Your task to perform on an android device: turn on location history Image 0: 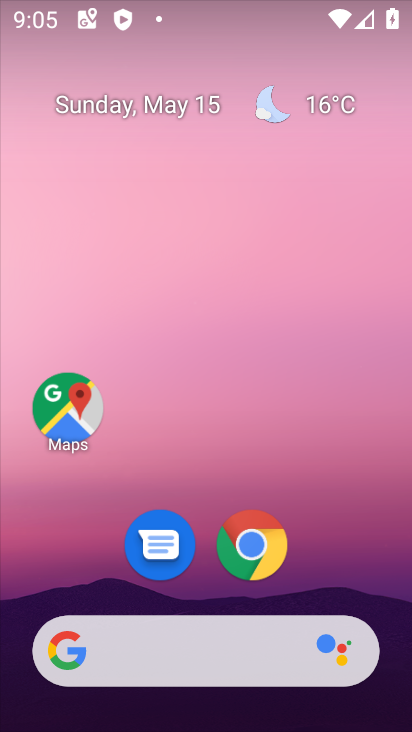
Step 0: drag from (341, 563) to (250, 141)
Your task to perform on an android device: turn on location history Image 1: 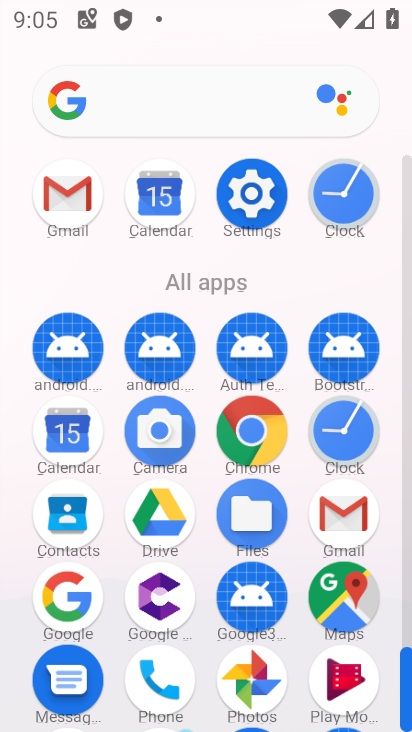
Step 1: click (249, 193)
Your task to perform on an android device: turn on location history Image 2: 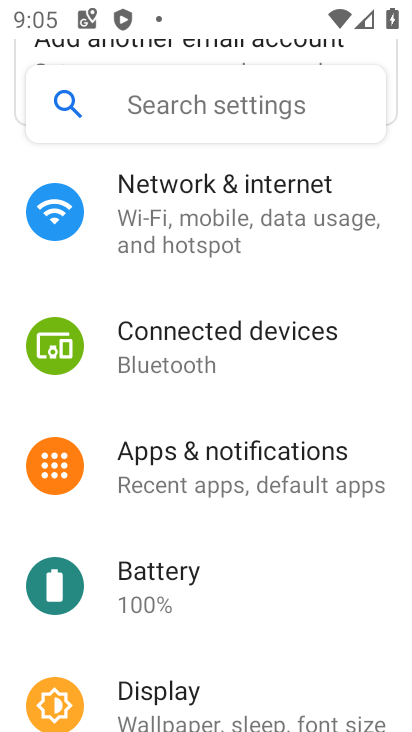
Step 2: drag from (200, 529) to (222, 416)
Your task to perform on an android device: turn on location history Image 3: 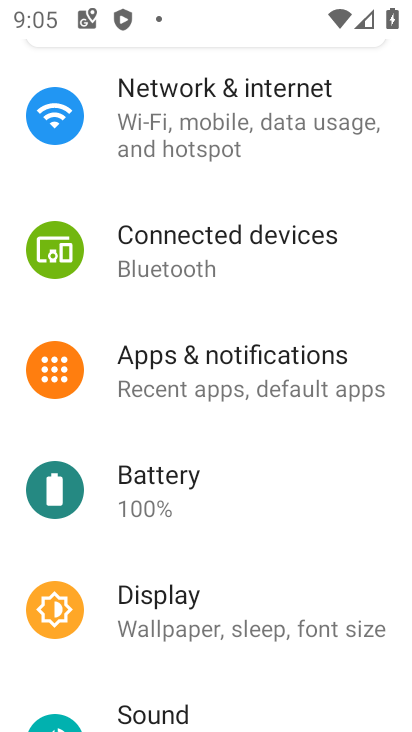
Step 3: drag from (209, 500) to (232, 399)
Your task to perform on an android device: turn on location history Image 4: 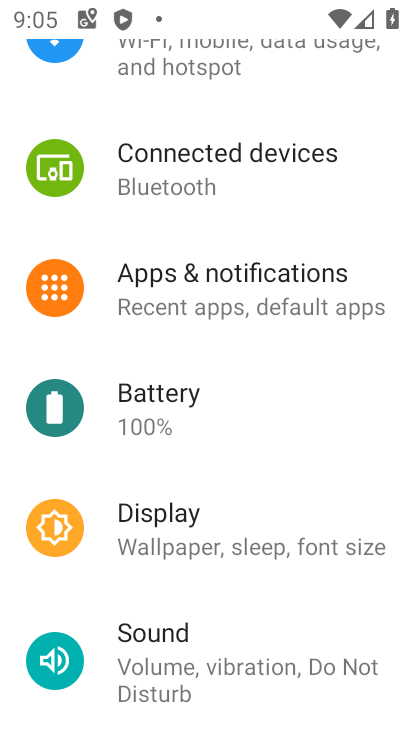
Step 4: drag from (178, 480) to (209, 400)
Your task to perform on an android device: turn on location history Image 5: 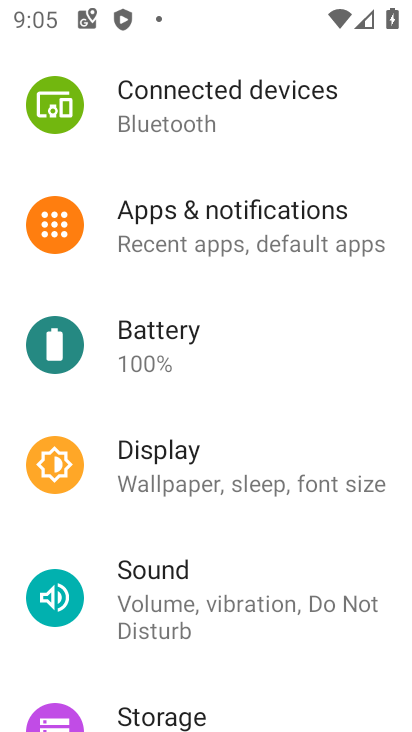
Step 5: drag from (164, 414) to (244, 307)
Your task to perform on an android device: turn on location history Image 6: 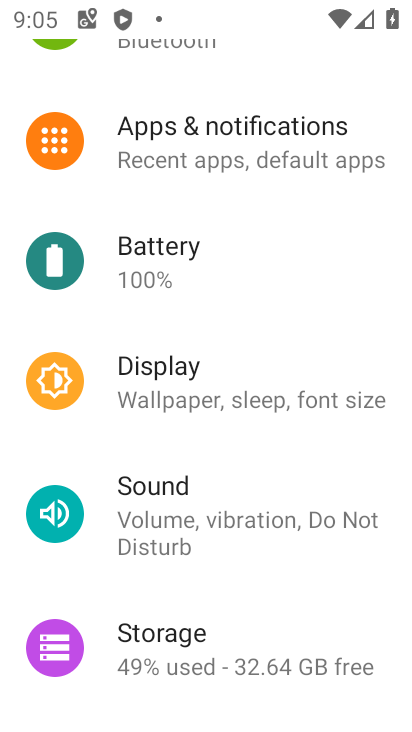
Step 6: drag from (149, 578) to (192, 465)
Your task to perform on an android device: turn on location history Image 7: 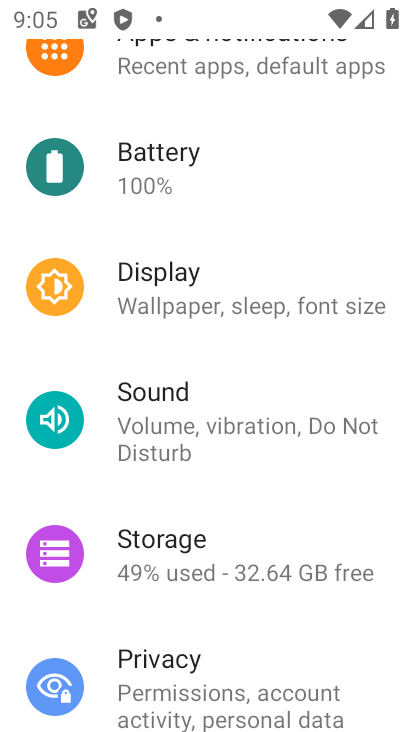
Step 7: drag from (156, 499) to (225, 393)
Your task to perform on an android device: turn on location history Image 8: 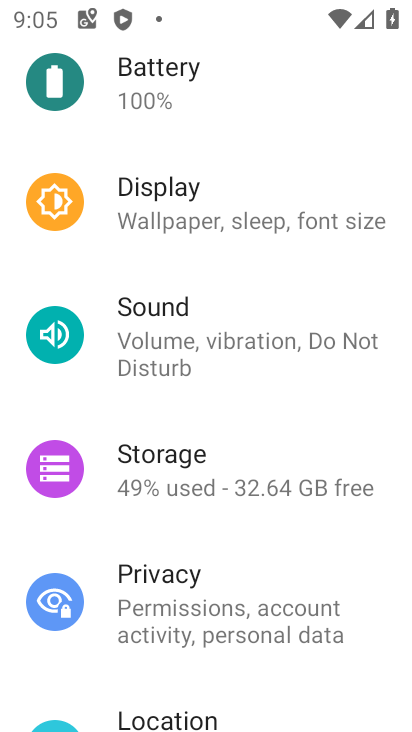
Step 8: drag from (150, 418) to (228, 319)
Your task to perform on an android device: turn on location history Image 9: 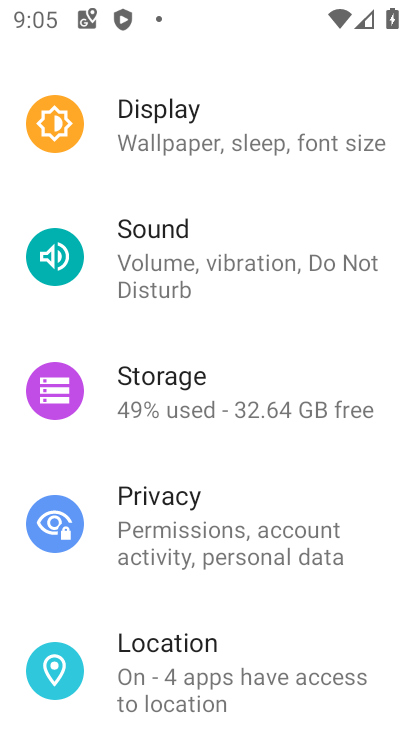
Step 9: drag from (143, 461) to (182, 365)
Your task to perform on an android device: turn on location history Image 10: 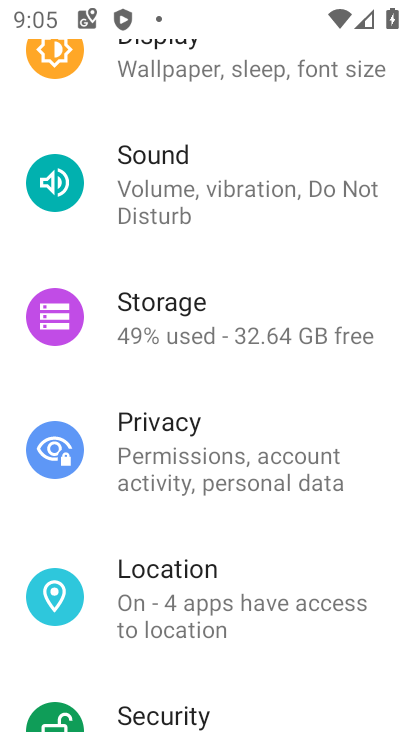
Step 10: click (161, 577)
Your task to perform on an android device: turn on location history Image 11: 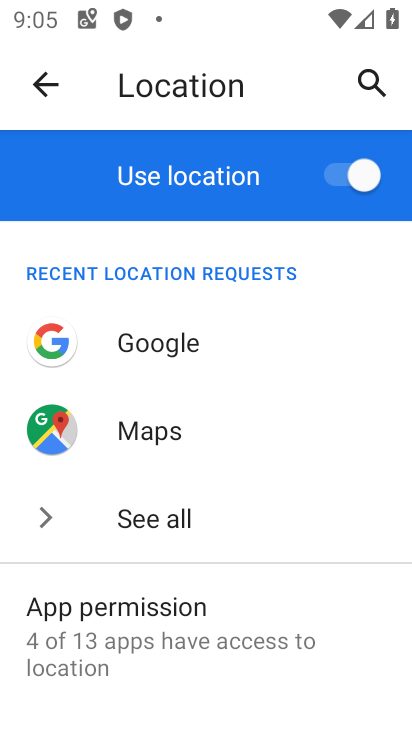
Step 11: drag from (191, 670) to (253, 538)
Your task to perform on an android device: turn on location history Image 12: 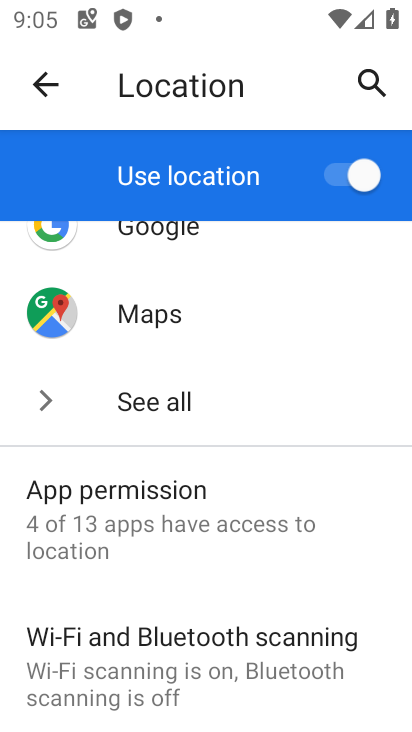
Step 12: drag from (182, 575) to (253, 464)
Your task to perform on an android device: turn on location history Image 13: 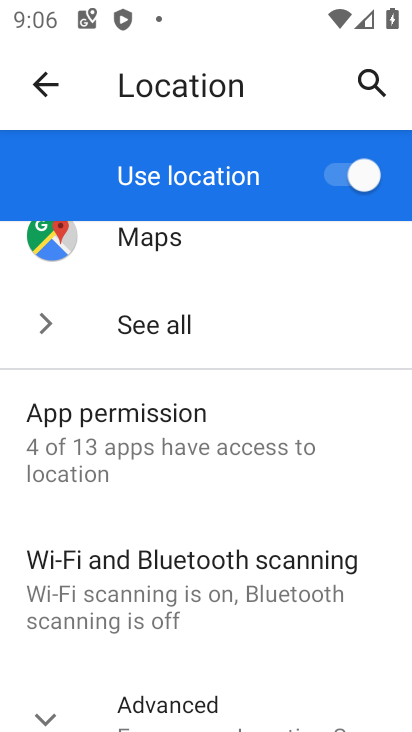
Step 13: drag from (217, 642) to (244, 498)
Your task to perform on an android device: turn on location history Image 14: 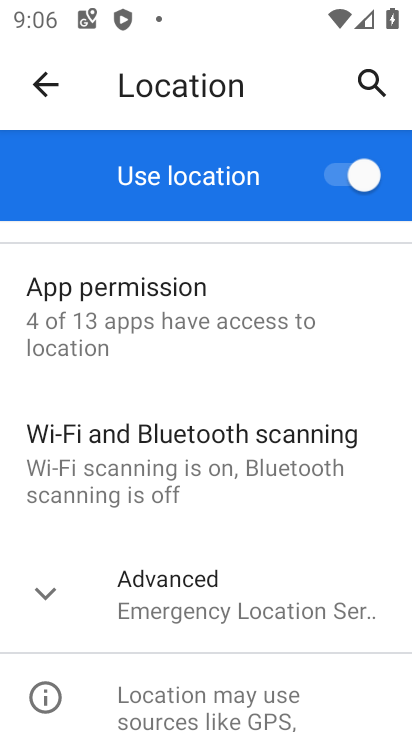
Step 14: drag from (205, 543) to (283, 425)
Your task to perform on an android device: turn on location history Image 15: 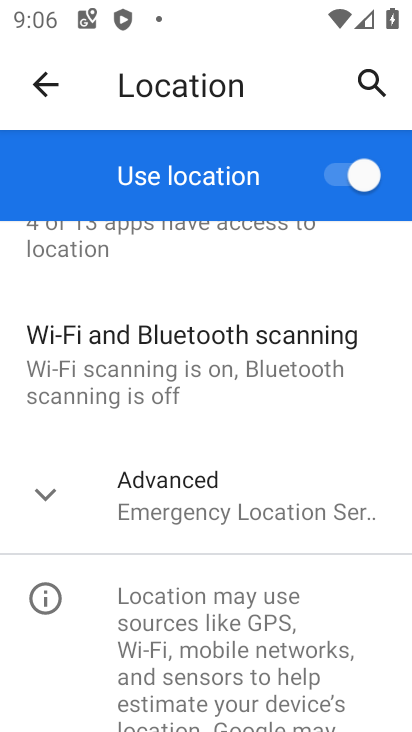
Step 15: click (233, 503)
Your task to perform on an android device: turn on location history Image 16: 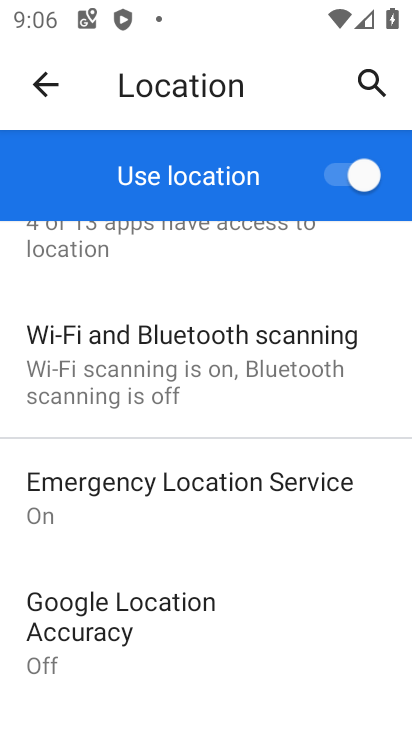
Step 16: drag from (205, 634) to (295, 417)
Your task to perform on an android device: turn on location history Image 17: 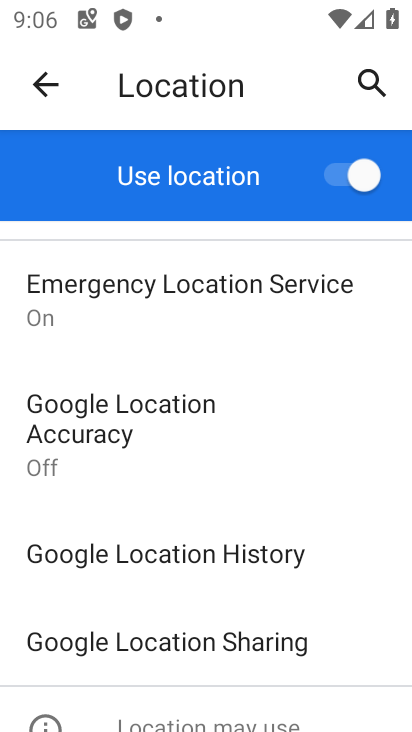
Step 17: click (218, 556)
Your task to perform on an android device: turn on location history Image 18: 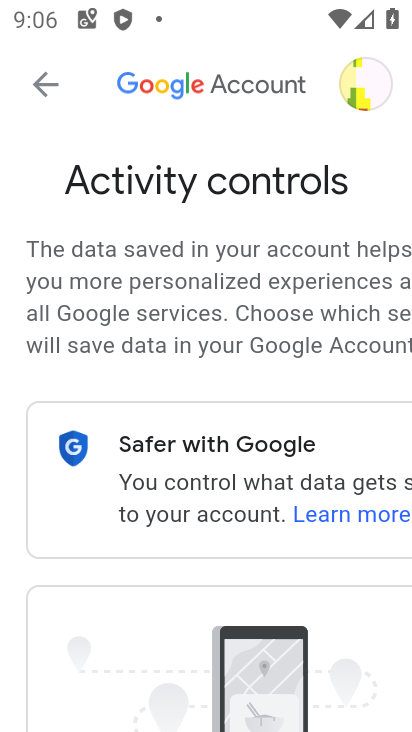
Step 18: drag from (167, 638) to (218, 404)
Your task to perform on an android device: turn on location history Image 19: 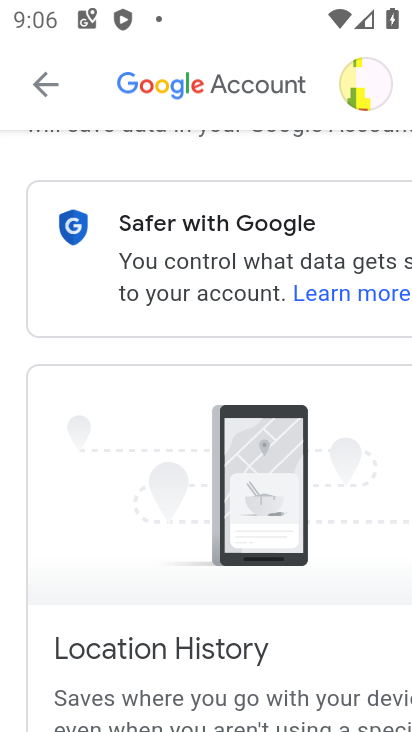
Step 19: drag from (151, 604) to (224, 325)
Your task to perform on an android device: turn on location history Image 20: 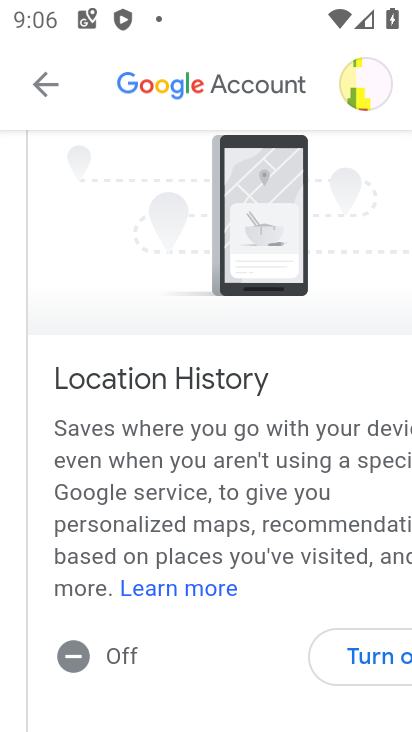
Step 20: click (377, 656)
Your task to perform on an android device: turn on location history Image 21: 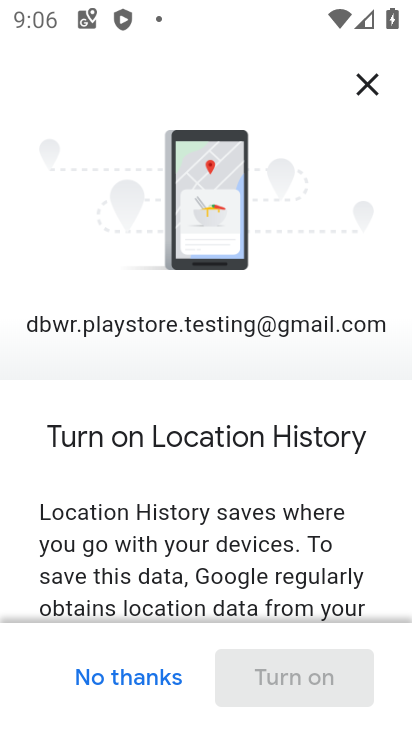
Step 21: drag from (273, 572) to (332, 353)
Your task to perform on an android device: turn on location history Image 22: 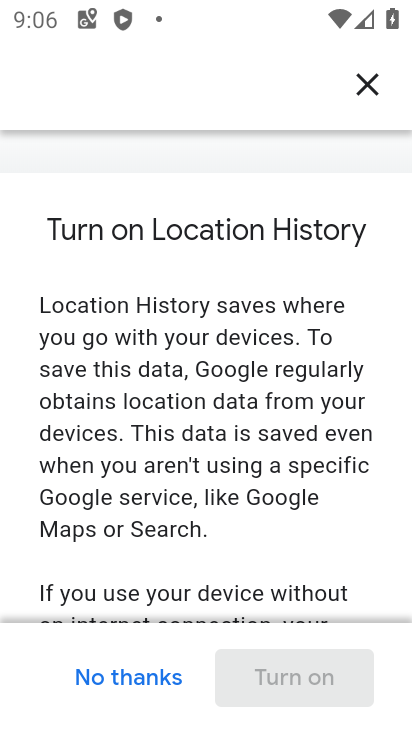
Step 22: drag from (286, 563) to (357, 355)
Your task to perform on an android device: turn on location history Image 23: 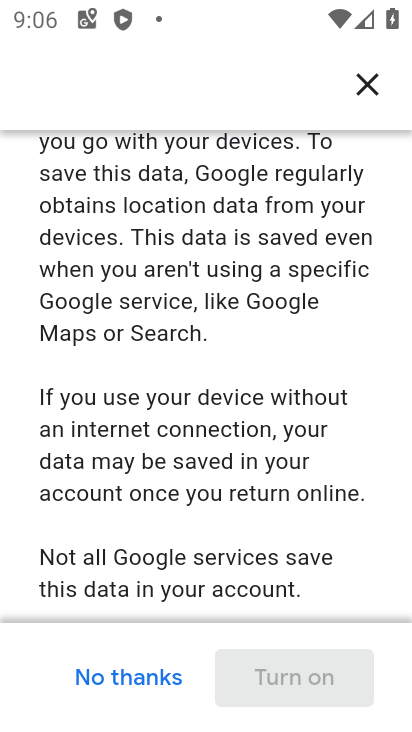
Step 23: drag from (262, 545) to (253, 338)
Your task to perform on an android device: turn on location history Image 24: 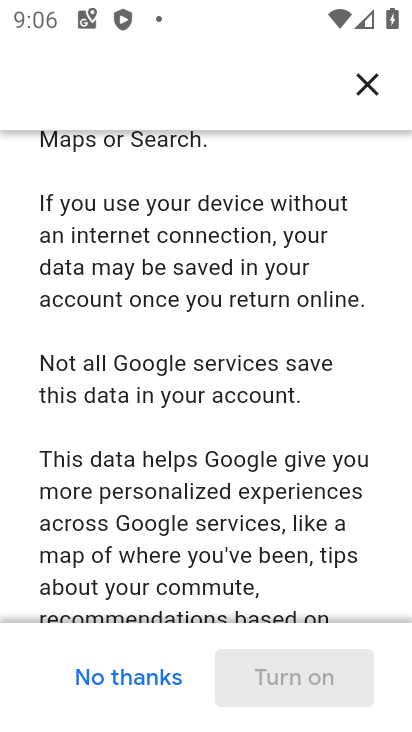
Step 24: drag from (207, 531) to (269, 399)
Your task to perform on an android device: turn on location history Image 25: 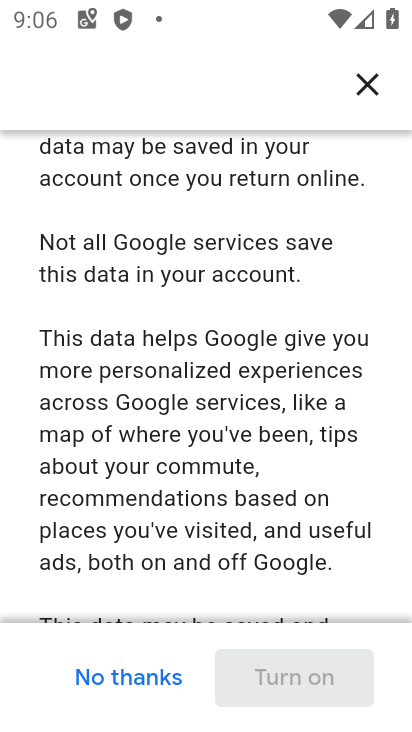
Step 25: drag from (213, 545) to (248, 425)
Your task to perform on an android device: turn on location history Image 26: 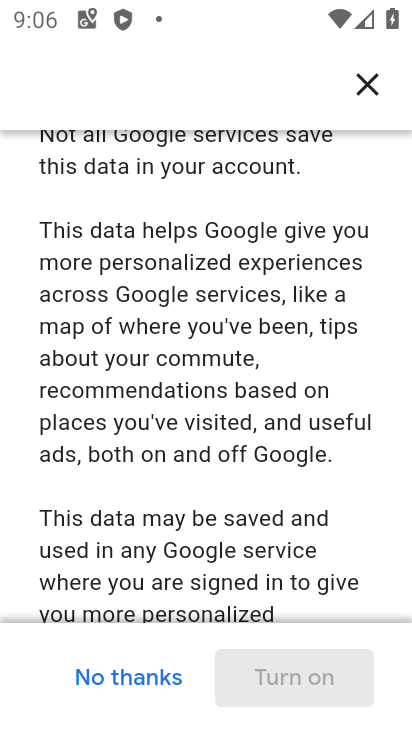
Step 26: drag from (223, 586) to (267, 430)
Your task to perform on an android device: turn on location history Image 27: 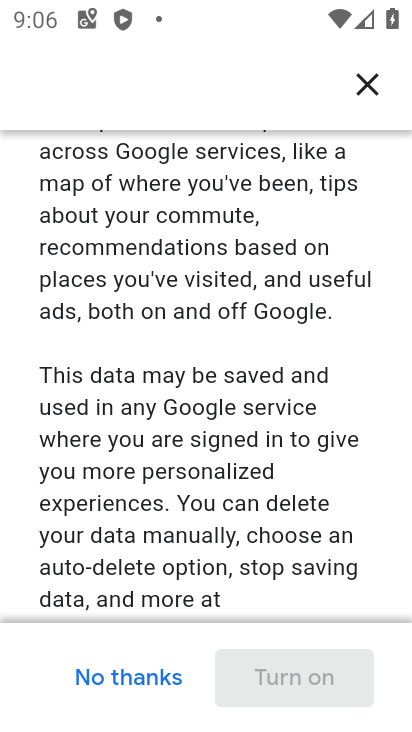
Step 27: drag from (236, 590) to (305, 458)
Your task to perform on an android device: turn on location history Image 28: 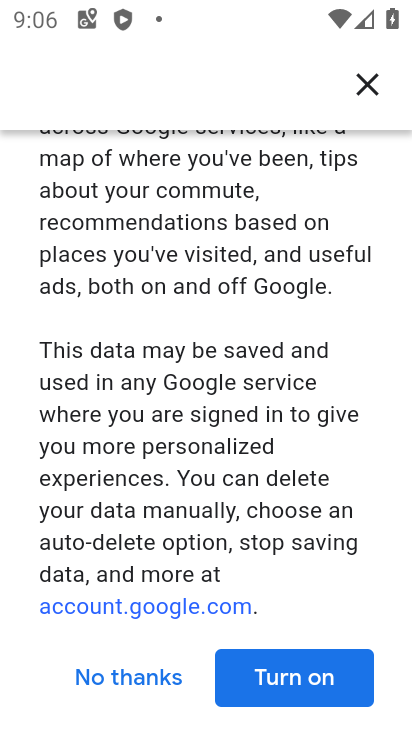
Step 28: click (277, 679)
Your task to perform on an android device: turn on location history Image 29: 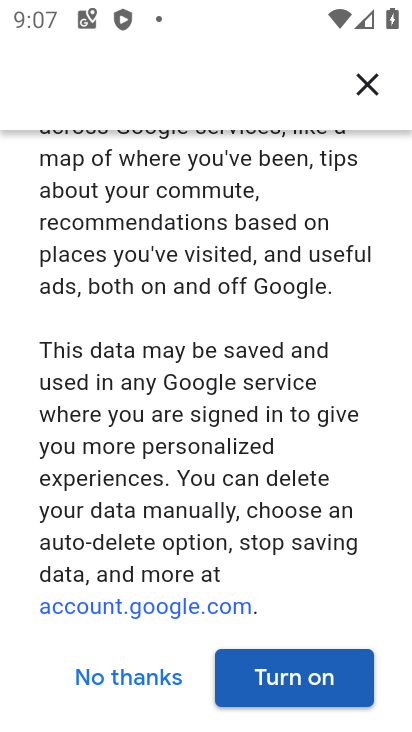
Step 29: click (277, 679)
Your task to perform on an android device: turn on location history Image 30: 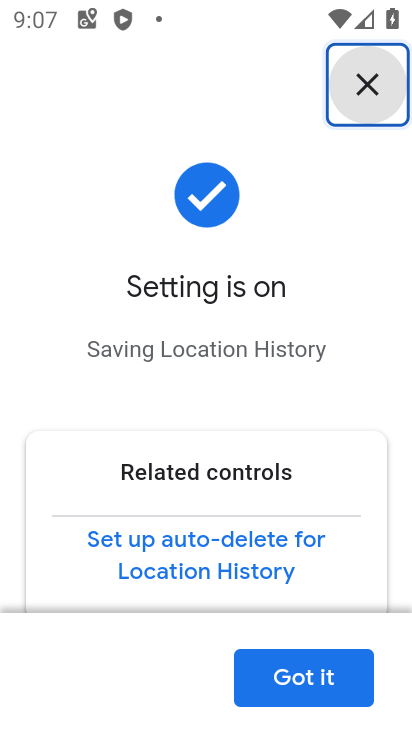
Step 30: click (277, 677)
Your task to perform on an android device: turn on location history Image 31: 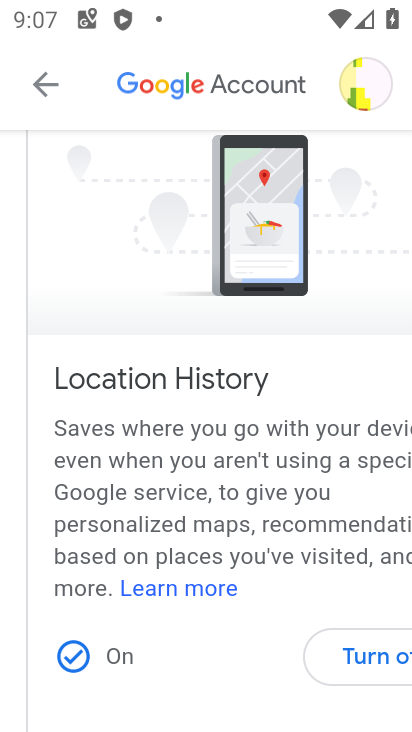
Step 31: task complete